Your task to perform on an android device: Go to Reddit.com Image 0: 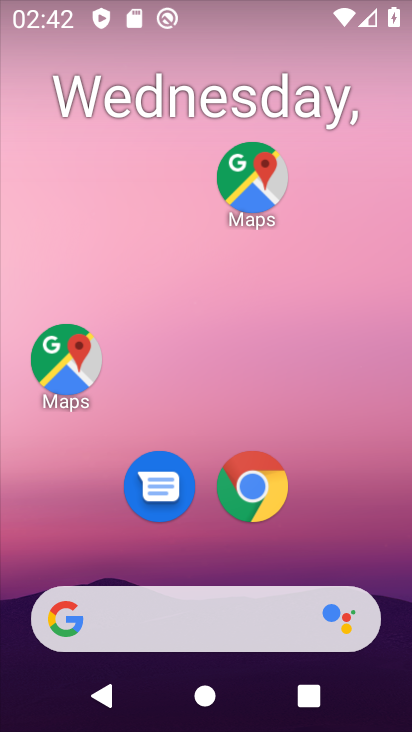
Step 0: click (242, 497)
Your task to perform on an android device: Go to Reddit.com Image 1: 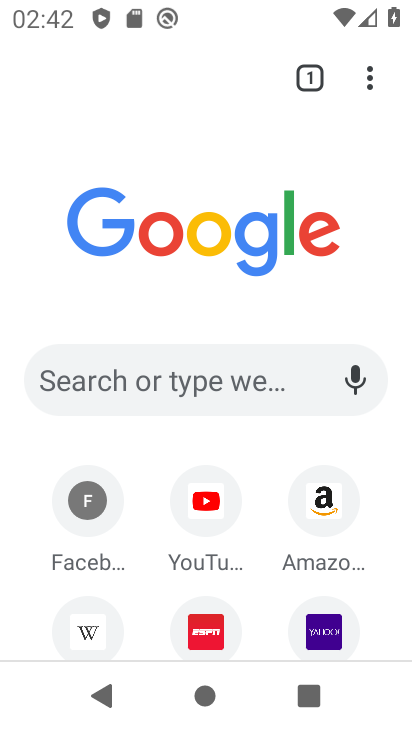
Step 1: click (182, 397)
Your task to perform on an android device: Go to Reddit.com Image 2: 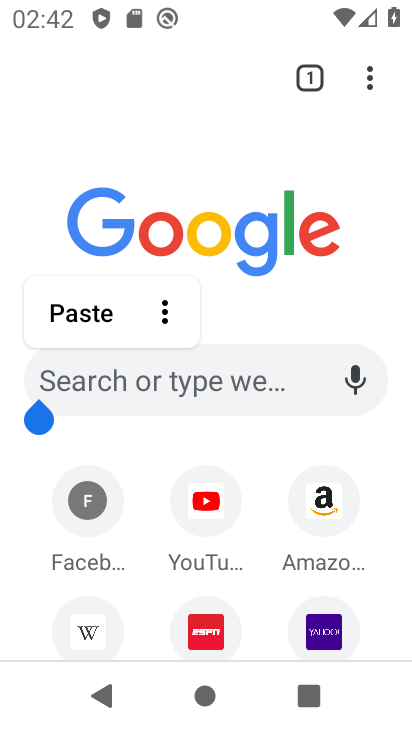
Step 2: type "red"
Your task to perform on an android device: Go to Reddit.com Image 3: 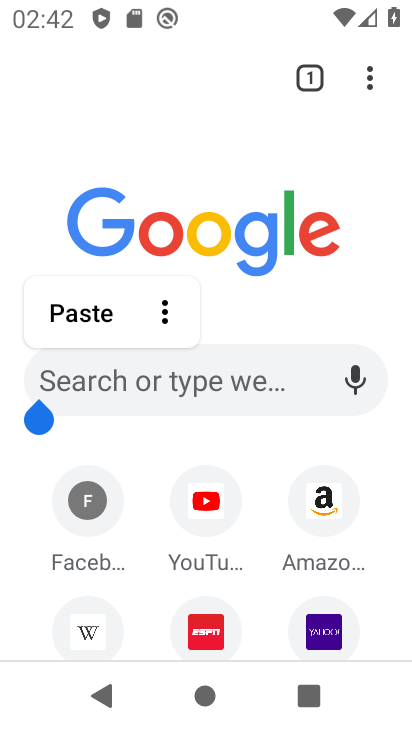
Step 3: click (139, 381)
Your task to perform on an android device: Go to Reddit.com Image 4: 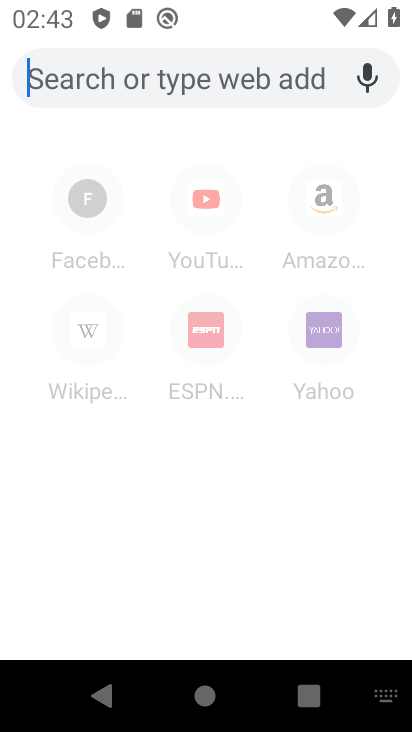
Step 4: type "reddit.com"
Your task to perform on an android device: Go to Reddit.com Image 5: 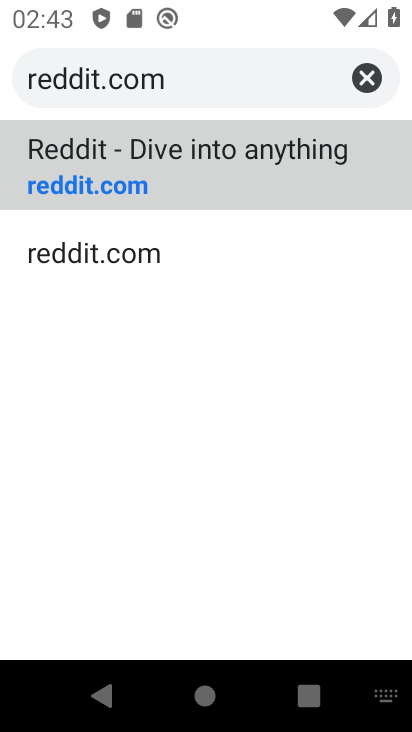
Step 5: click (159, 162)
Your task to perform on an android device: Go to Reddit.com Image 6: 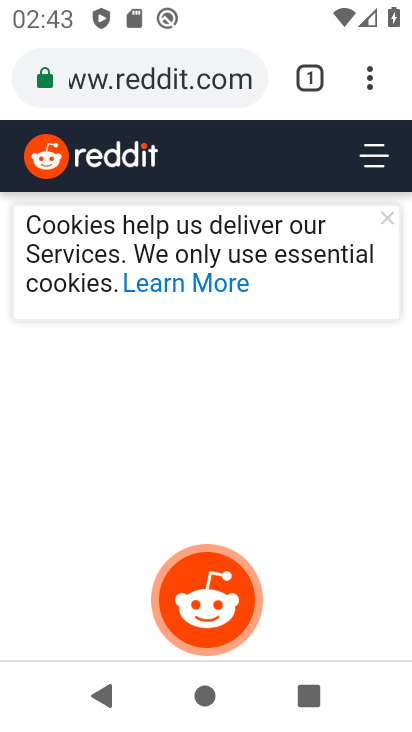
Step 6: task complete